Your task to perform on an android device: Go to network settings Image 0: 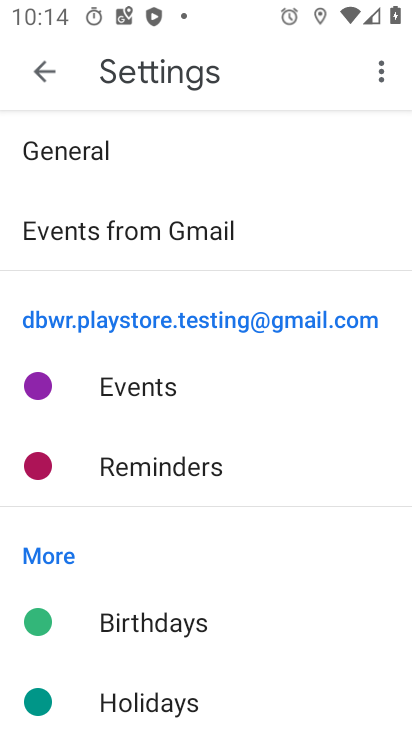
Step 0: click (46, 83)
Your task to perform on an android device: Go to network settings Image 1: 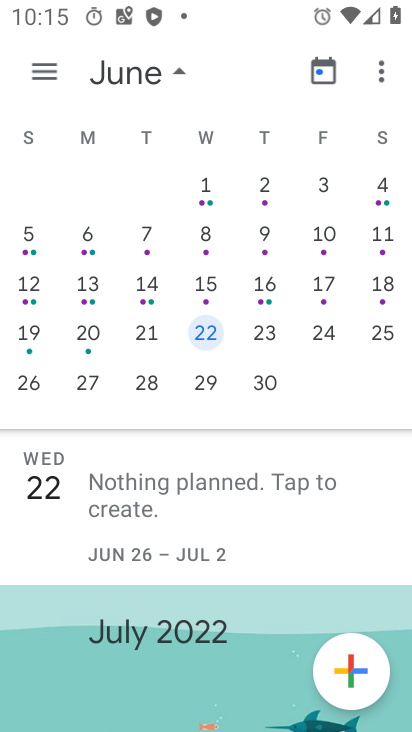
Step 1: press home button
Your task to perform on an android device: Go to network settings Image 2: 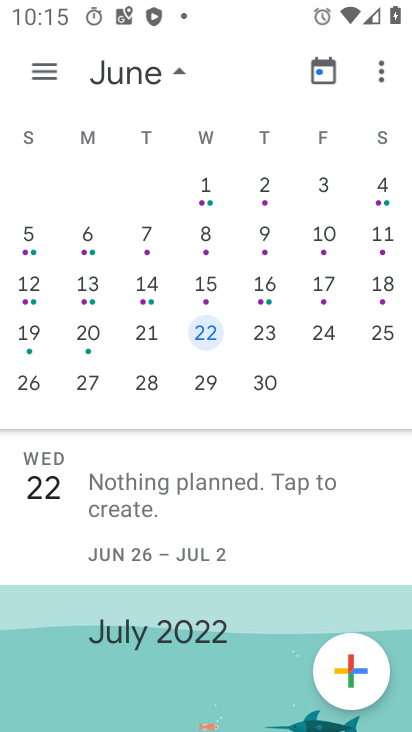
Step 2: press home button
Your task to perform on an android device: Go to network settings Image 3: 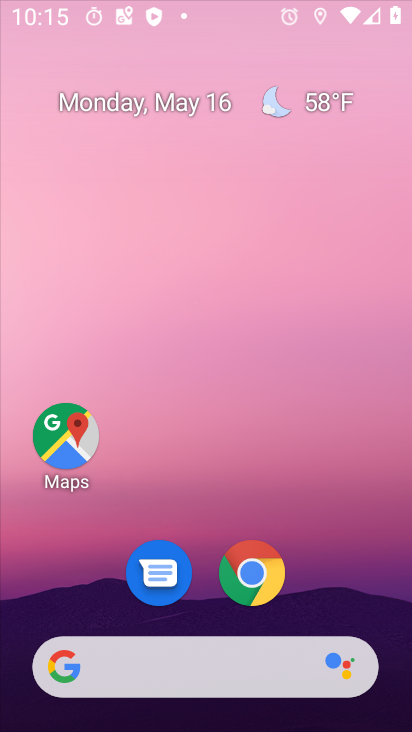
Step 3: press home button
Your task to perform on an android device: Go to network settings Image 4: 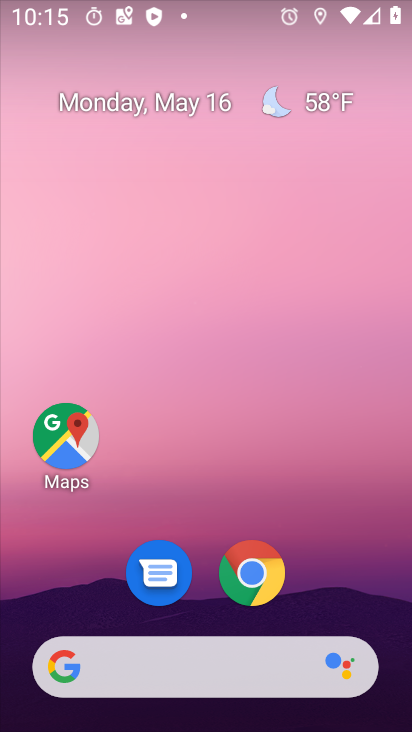
Step 4: drag from (299, 626) to (178, 79)
Your task to perform on an android device: Go to network settings Image 5: 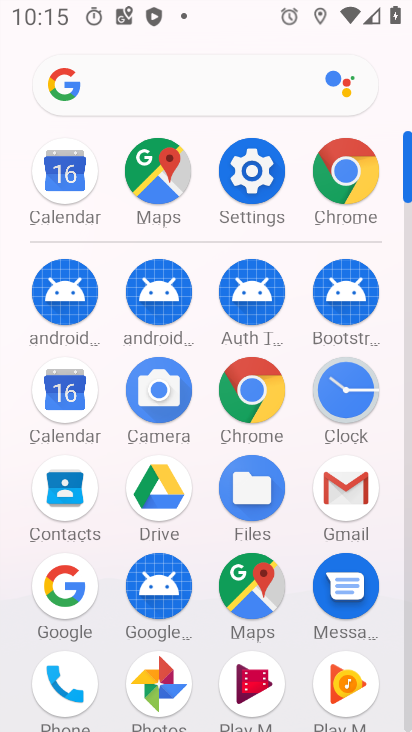
Step 5: click (274, 161)
Your task to perform on an android device: Go to network settings Image 6: 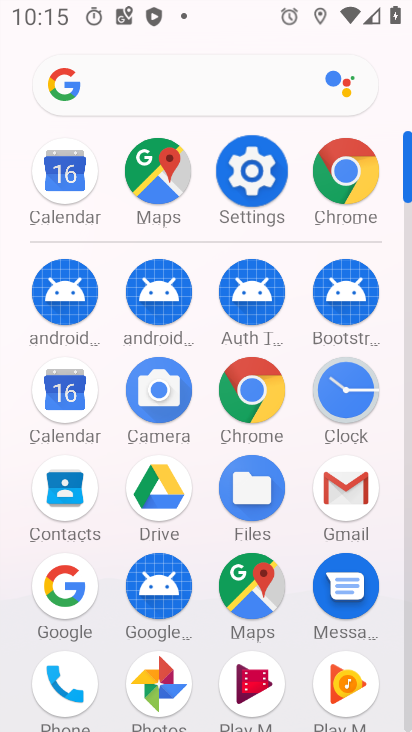
Step 6: click (268, 161)
Your task to perform on an android device: Go to network settings Image 7: 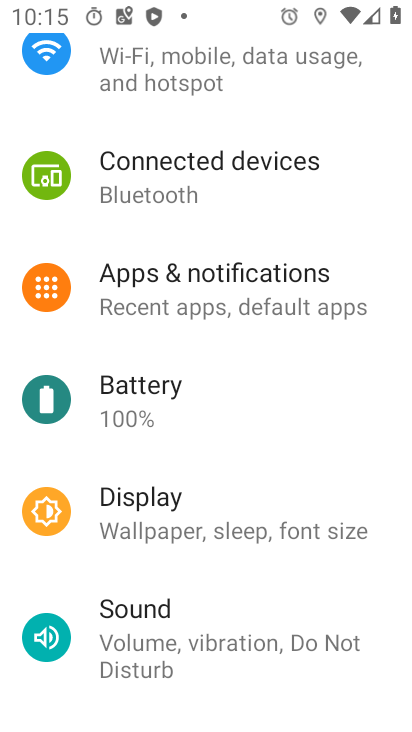
Step 7: drag from (142, 147) to (186, 600)
Your task to perform on an android device: Go to network settings Image 8: 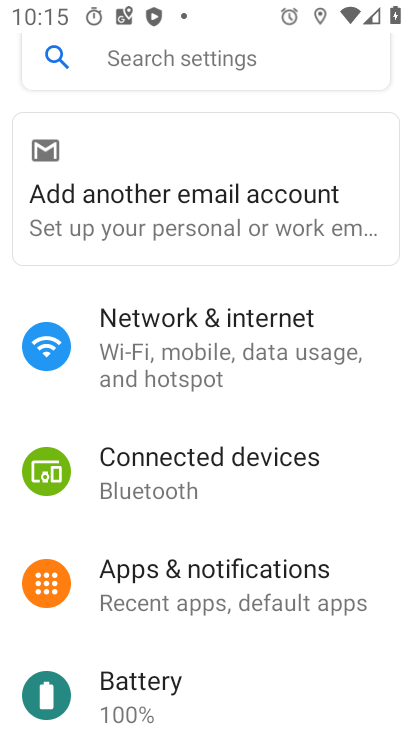
Step 8: click (198, 328)
Your task to perform on an android device: Go to network settings Image 9: 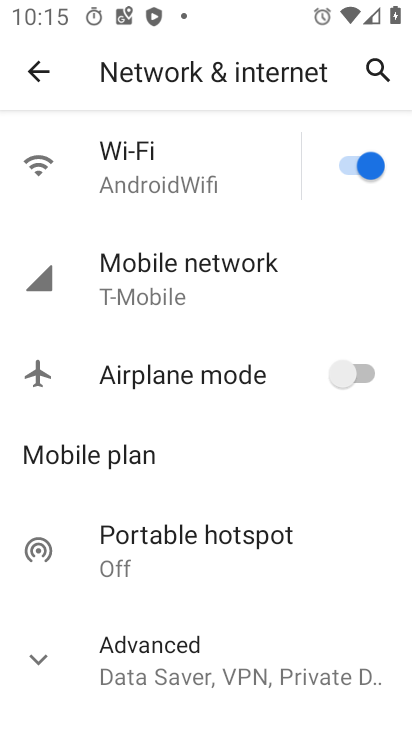
Step 9: task complete